Your task to perform on an android device: turn on the 24-hour format for clock Image 0: 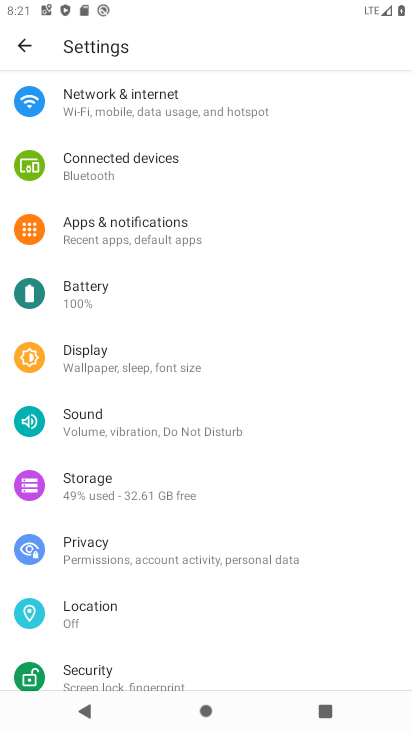
Step 0: press home button
Your task to perform on an android device: turn on the 24-hour format for clock Image 1: 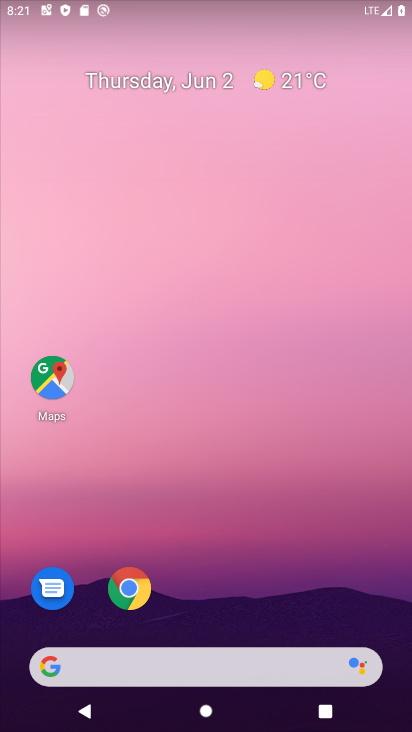
Step 1: drag from (228, 558) to (239, 253)
Your task to perform on an android device: turn on the 24-hour format for clock Image 2: 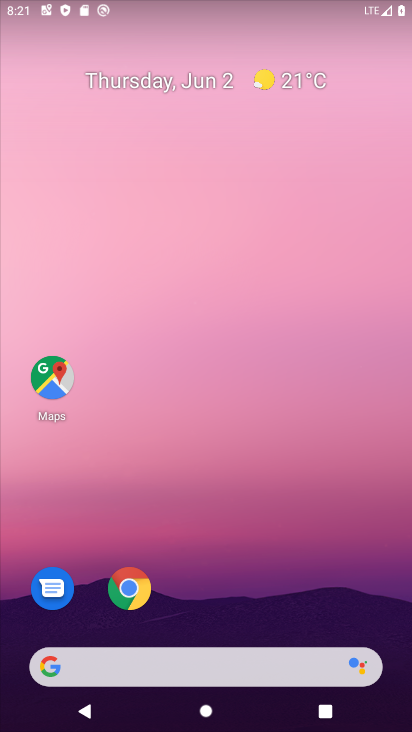
Step 2: drag from (233, 627) to (283, 222)
Your task to perform on an android device: turn on the 24-hour format for clock Image 3: 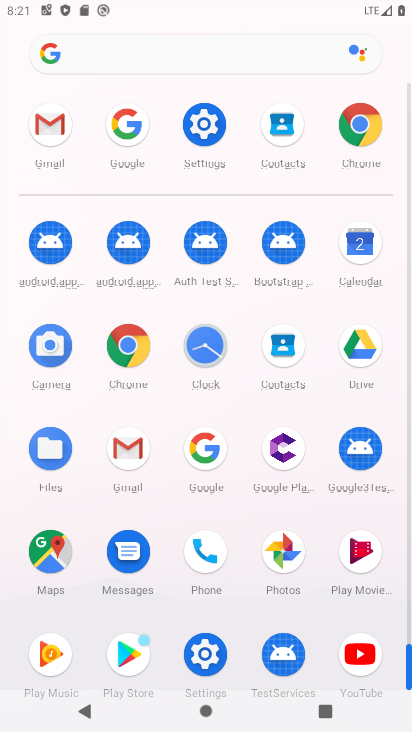
Step 3: click (198, 345)
Your task to perform on an android device: turn on the 24-hour format for clock Image 4: 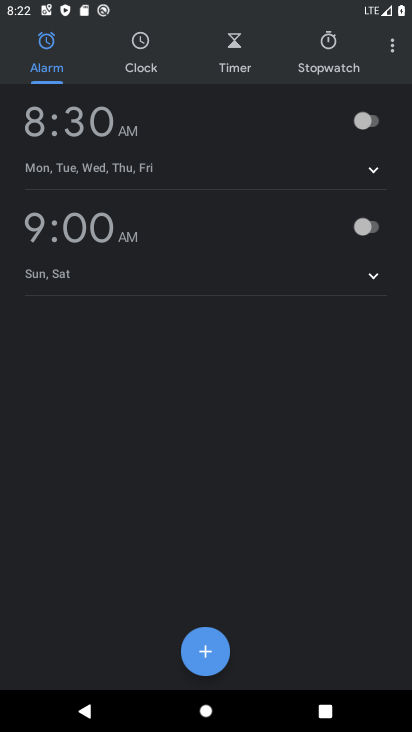
Step 4: click (383, 58)
Your task to perform on an android device: turn on the 24-hour format for clock Image 5: 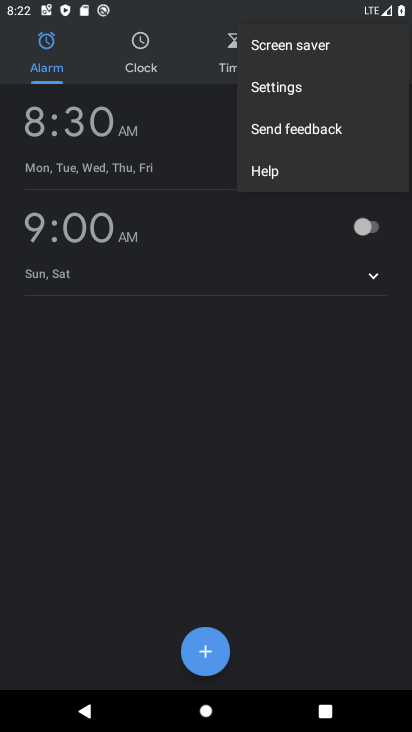
Step 5: click (309, 94)
Your task to perform on an android device: turn on the 24-hour format for clock Image 6: 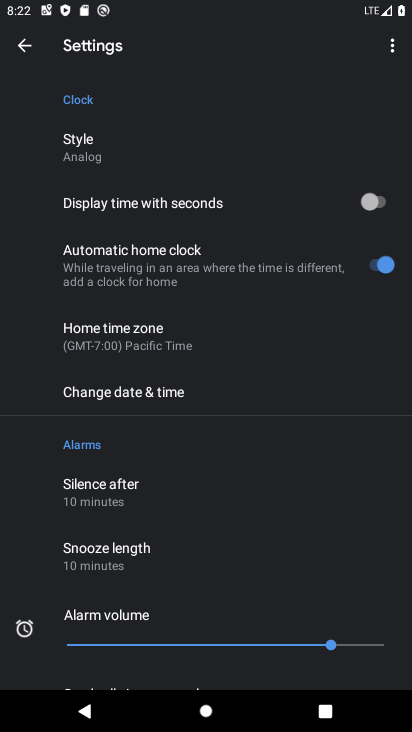
Step 6: click (186, 395)
Your task to perform on an android device: turn on the 24-hour format for clock Image 7: 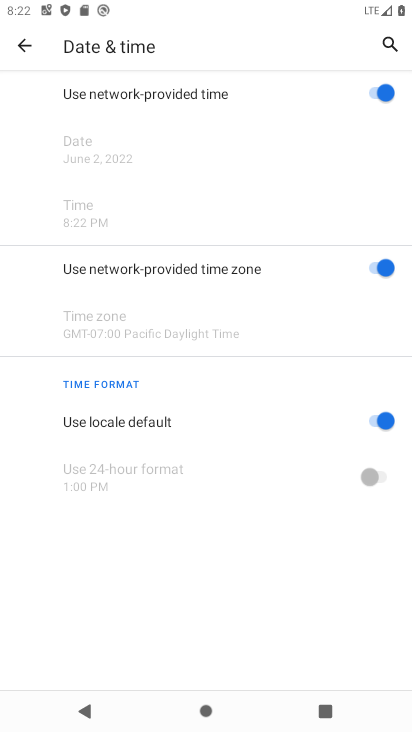
Step 7: click (155, 462)
Your task to perform on an android device: turn on the 24-hour format for clock Image 8: 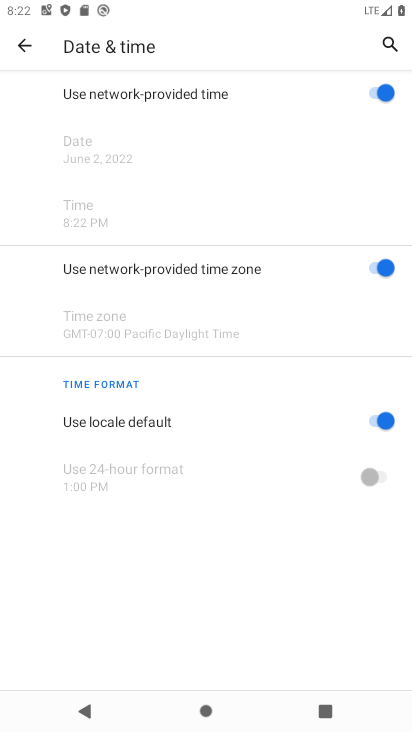
Step 8: task complete